Your task to perform on an android device: Go to settings Image 0: 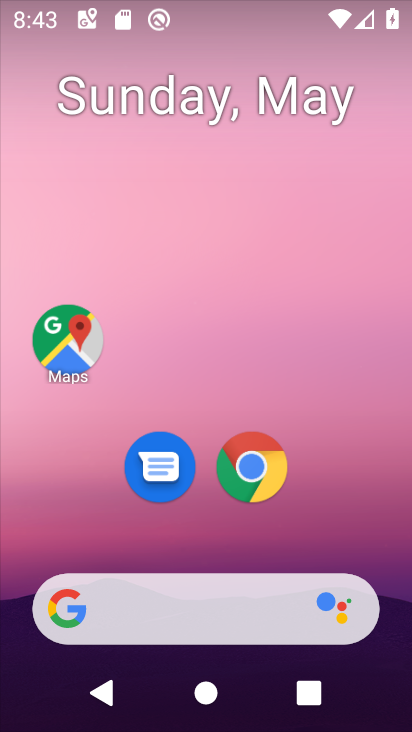
Step 0: drag from (367, 529) to (363, 114)
Your task to perform on an android device: Go to settings Image 1: 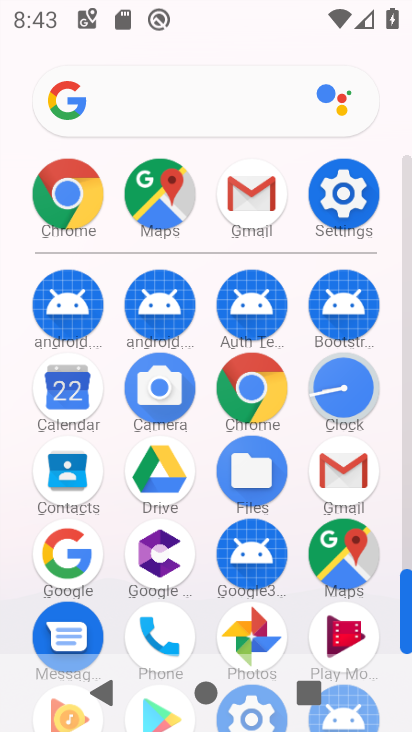
Step 1: click (332, 193)
Your task to perform on an android device: Go to settings Image 2: 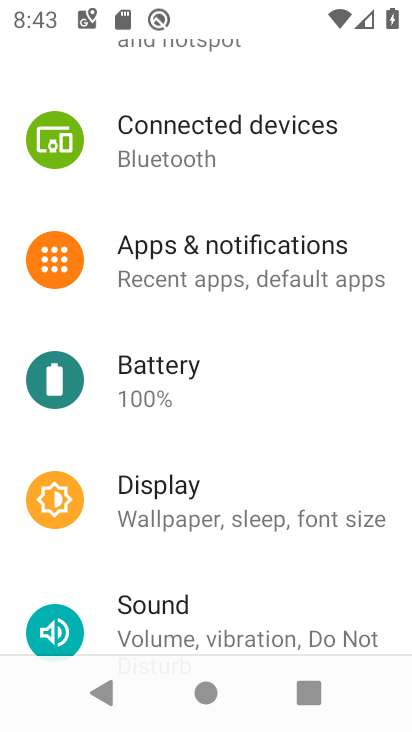
Step 2: task complete